Your task to perform on an android device: toggle show notifications on the lock screen Image 0: 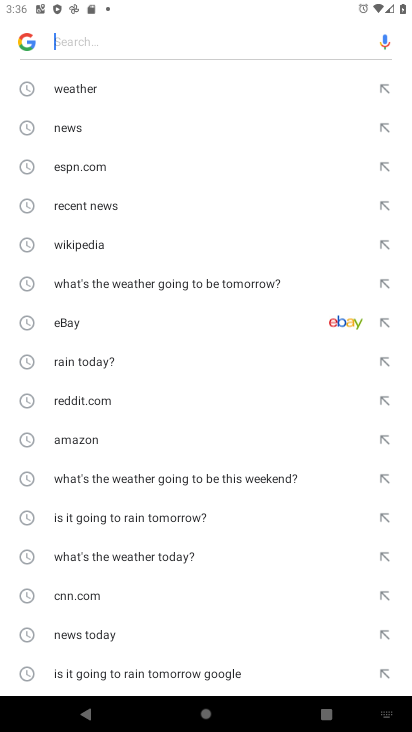
Step 0: press back button
Your task to perform on an android device: toggle show notifications on the lock screen Image 1: 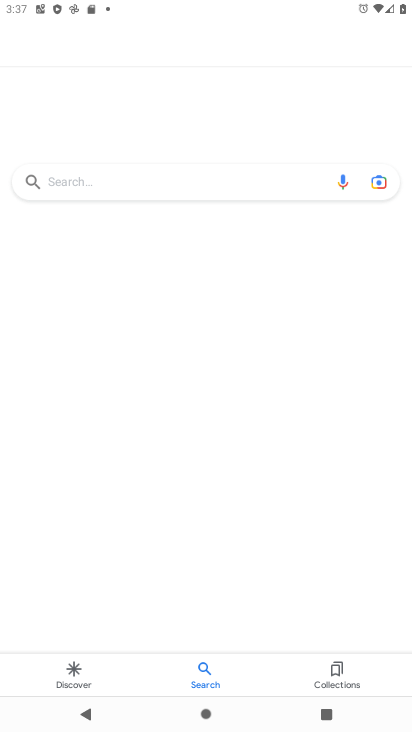
Step 1: press back button
Your task to perform on an android device: toggle show notifications on the lock screen Image 2: 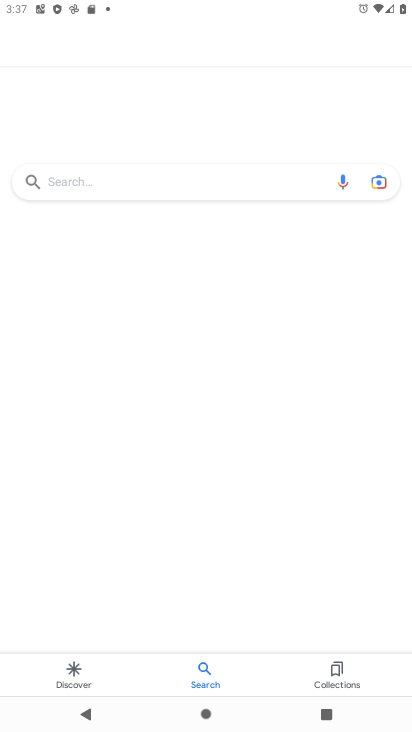
Step 2: press back button
Your task to perform on an android device: toggle show notifications on the lock screen Image 3: 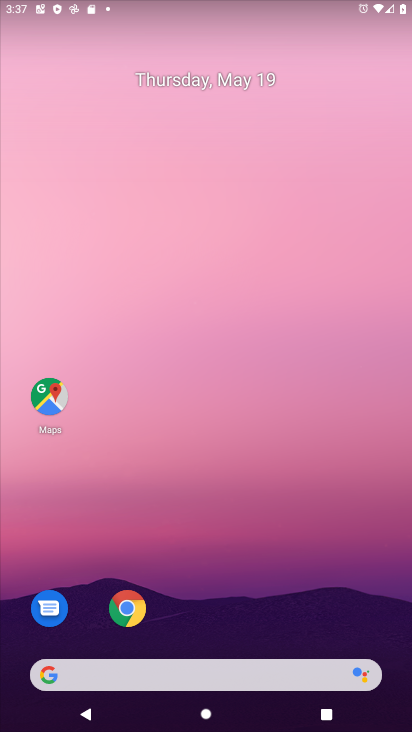
Step 3: drag from (247, 634) to (281, 233)
Your task to perform on an android device: toggle show notifications on the lock screen Image 4: 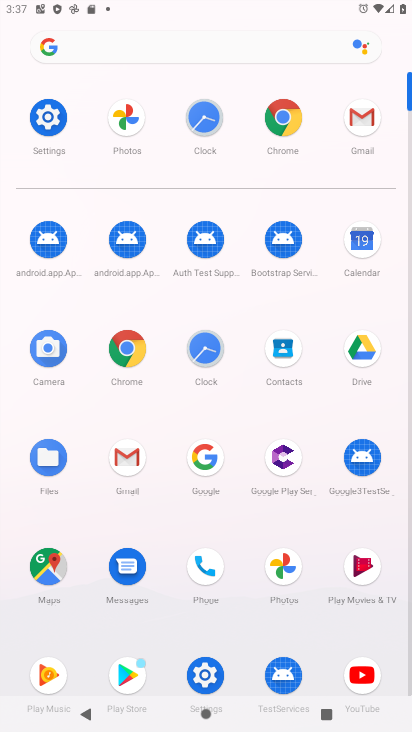
Step 4: click (63, 141)
Your task to perform on an android device: toggle show notifications on the lock screen Image 5: 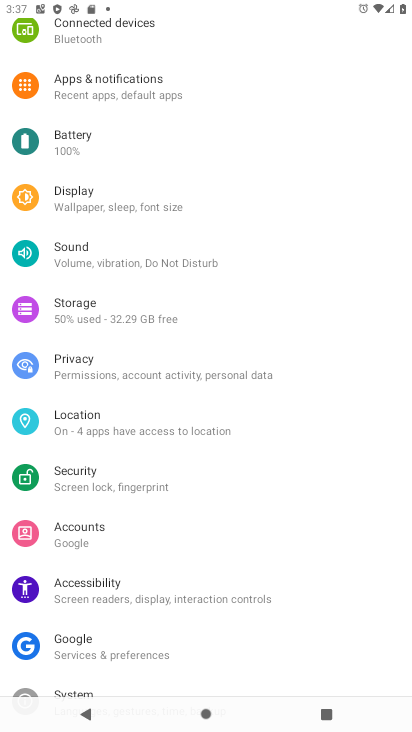
Step 5: click (170, 112)
Your task to perform on an android device: toggle show notifications on the lock screen Image 6: 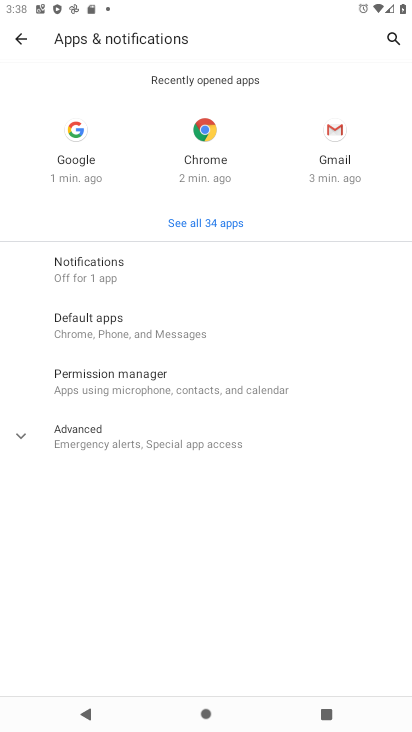
Step 6: task complete